Your task to perform on an android device: Search for vegetarian restaurants on Maps Image 0: 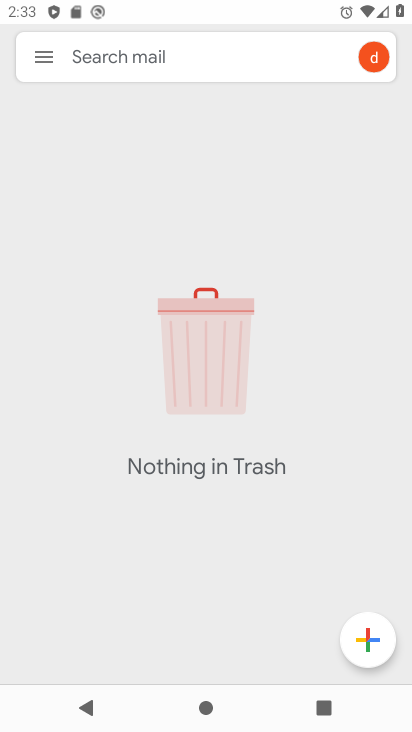
Step 0: press home button
Your task to perform on an android device: Search for vegetarian restaurants on Maps Image 1: 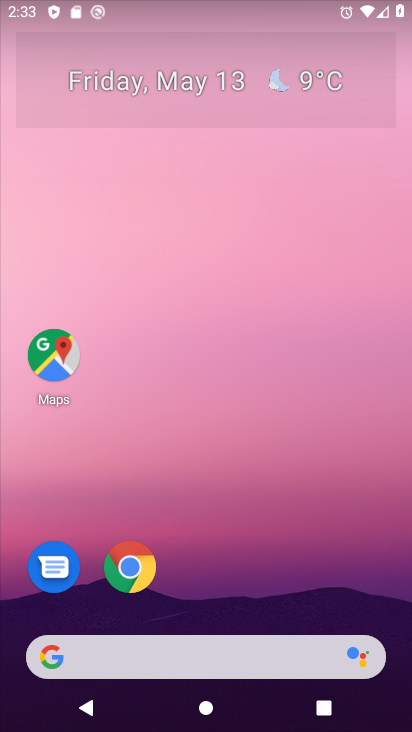
Step 1: click (61, 353)
Your task to perform on an android device: Search for vegetarian restaurants on Maps Image 2: 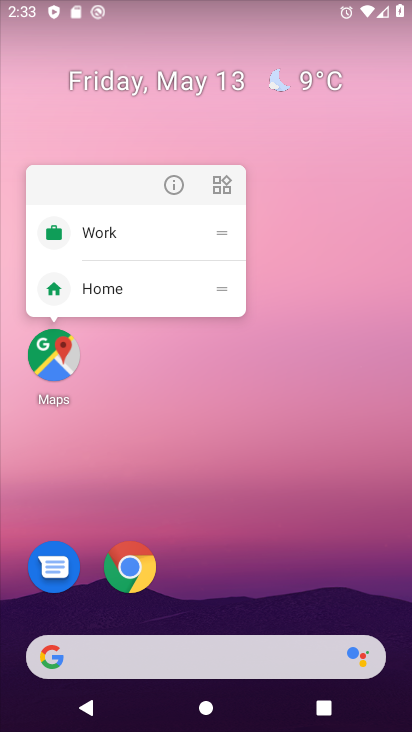
Step 2: click (59, 354)
Your task to perform on an android device: Search for vegetarian restaurants on Maps Image 3: 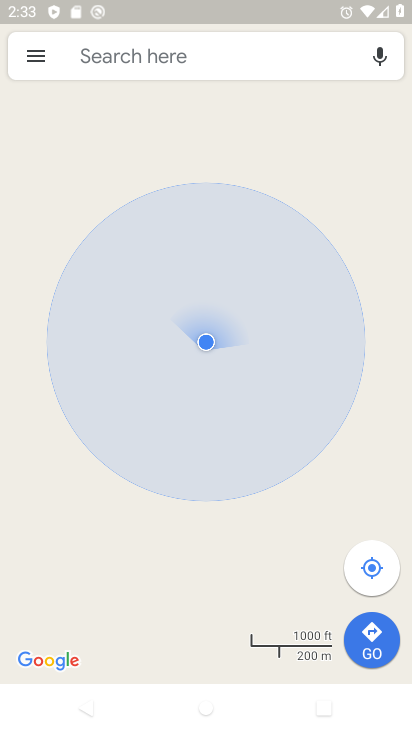
Step 3: click (218, 58)
Your task to perform on an android device: Search for vegetarian restaurants on Maps Image 4: 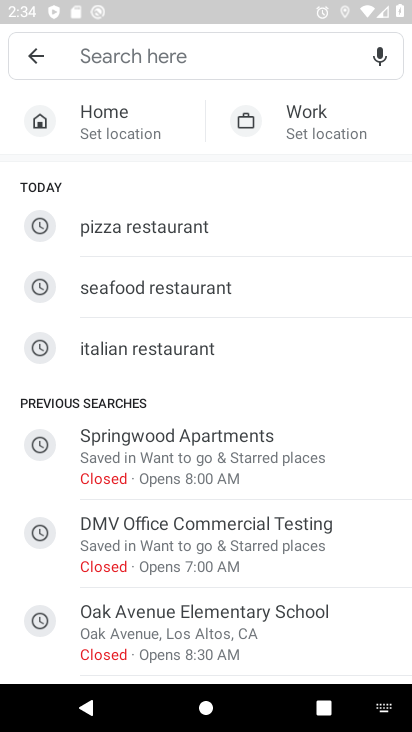
Step 4: type "vegetarian restaurants"
Your task to perform on an android device: Search for vegetarian restaurants on Maps Image 5: 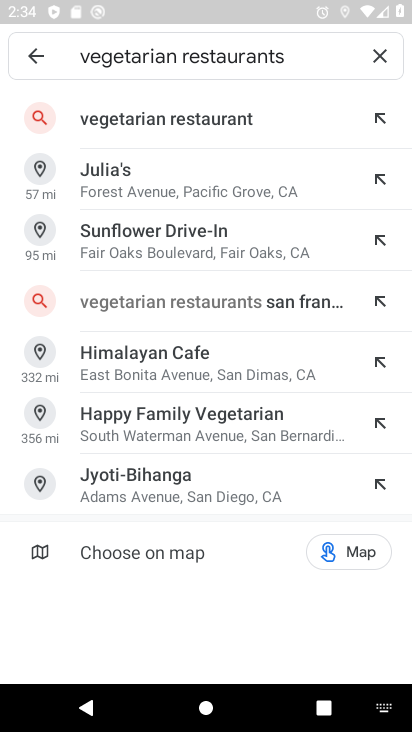
Step 5: click (203, 126)
Your task to perform on an android device: Search for vegetarian restaurants on Maps Image 6: 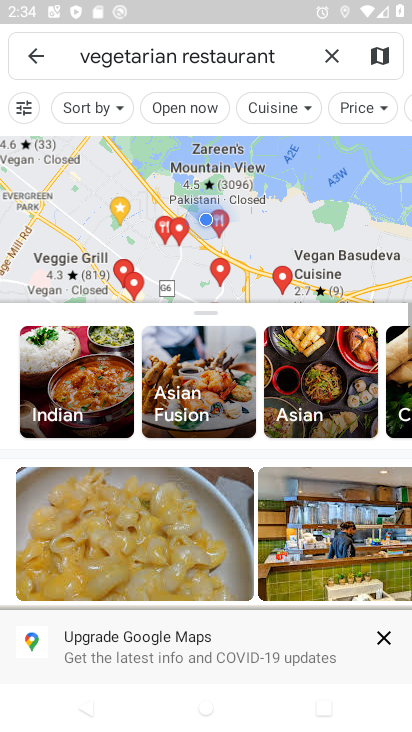
Step 6: task complete